Your task to perform on an android device: Go to ESPN.com Image 0: 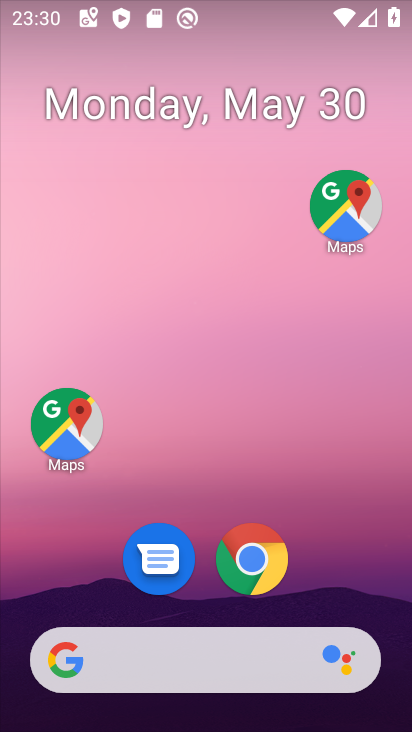
Step 0: drag from (344, 542) to (308, 148)
Your task to perform on an android device: Go to ESPN.com Image 1: 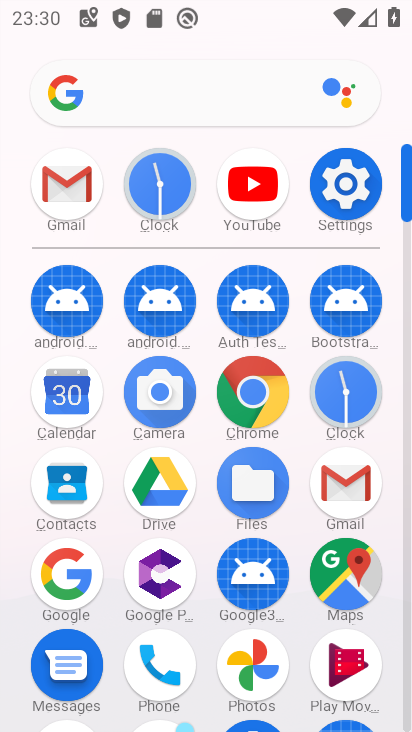
Step 1: click (268, 396)
Your task to perform on an android device: Go to ESPN.com Image 2: 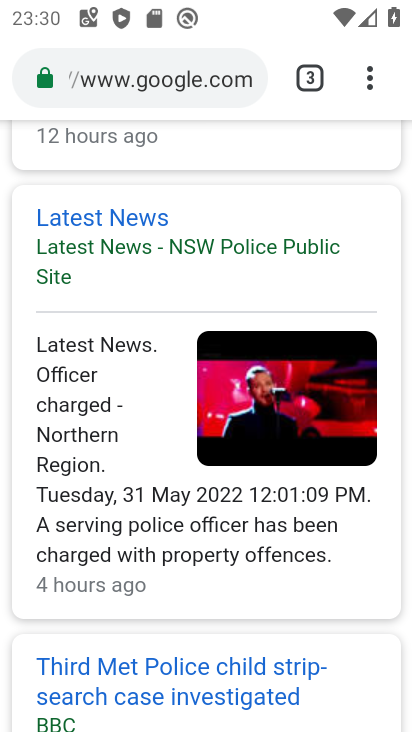
Step 2: click (181, 67)
Your task to perform on an android device: Go to ESPN.com Image 3: 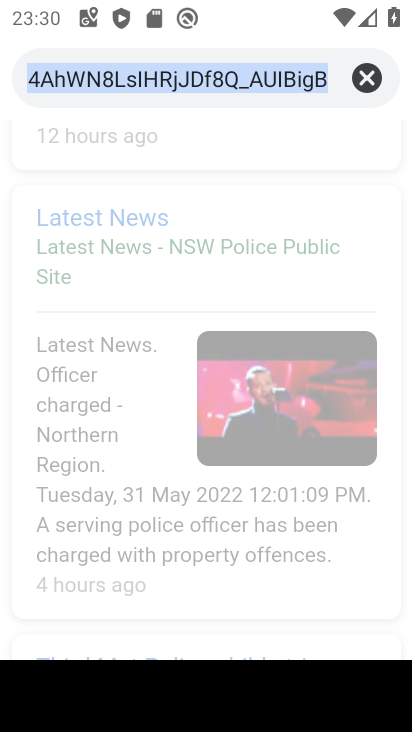
Step 3: type "espn.com"
Your task to perform on an android device: Go to ESPN.com Image 4: 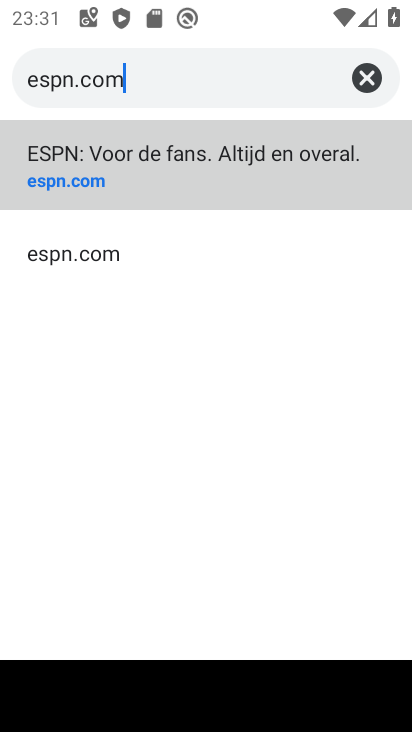
Step 4: click (65, 185)
Your task to perform on an android device: Go to ESPN.com Image 5: 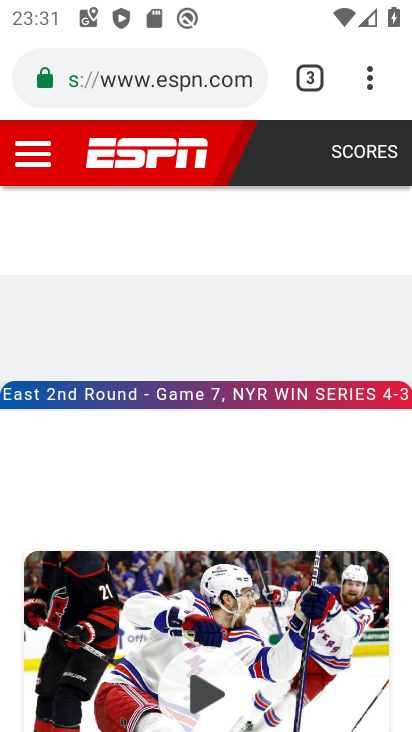
Step 5: task complete